Your task to perform on an android device: Go to sound settings Image 0: 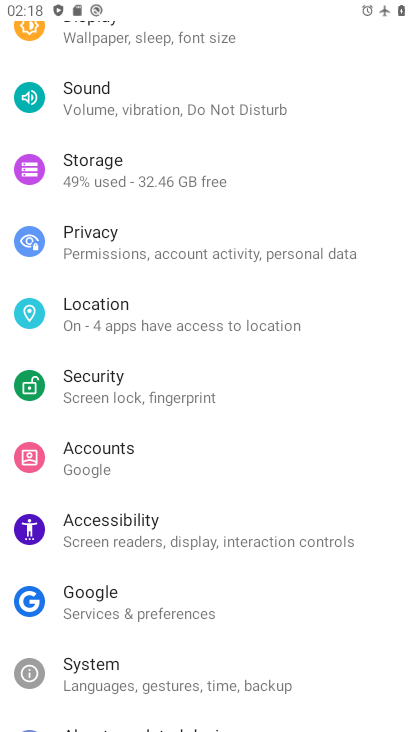
Step 0: press home button
Your task to perform on an android device: Go to sound settings Image 1: 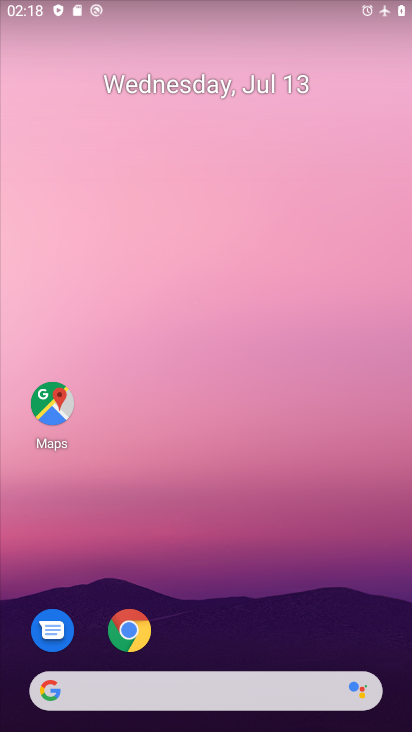
Step 1: drag from (255, 640) to (222, 297)
Your task to perform on an android device: Go to sound settings Image 2: 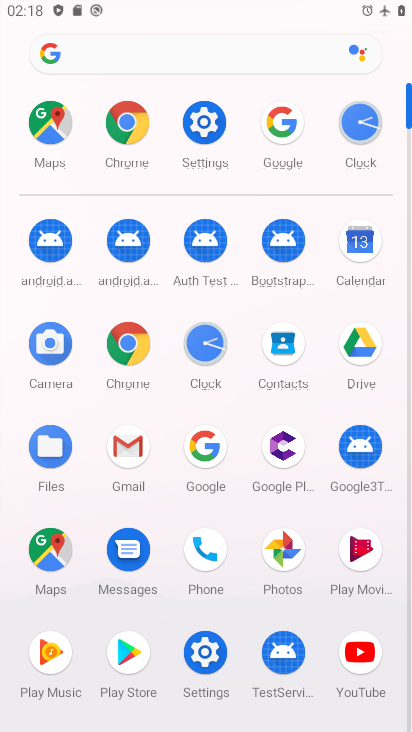
Step 2: click (198, 142)
Your task to perform on an android device: Go to sound settings Image 3: 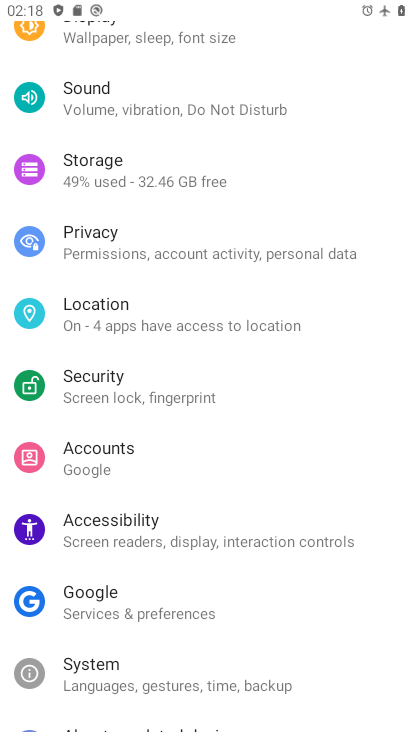
Step 3: click (153, 111)
Your task to perform on an android device: Go to sound settings Image 4: 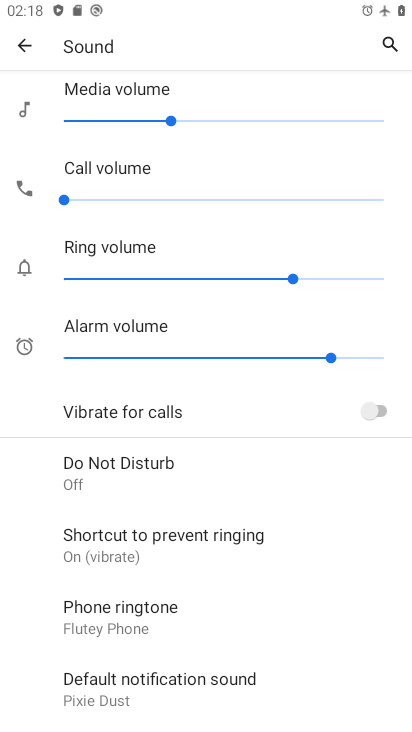
Step 4: task complete